Your task to perform on an android device: open app "LinkedIn" (install if not already installed), go to login, and select forgot password Image 0: 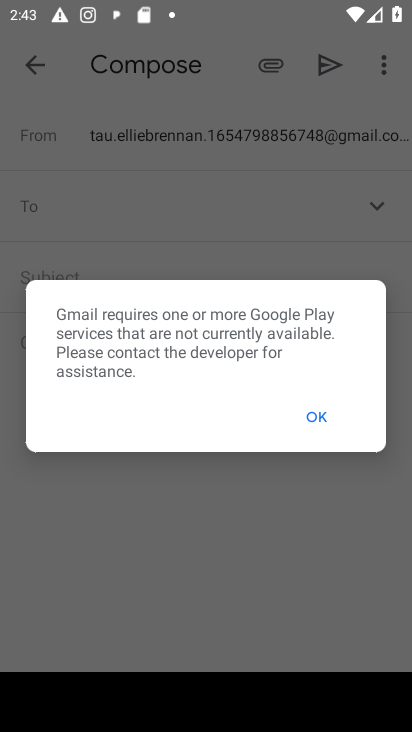
Step 0: press home button
Your task to perform on an android device: open app "LinkedIn" (install if not already installed), go to login, and select forgot password Image 1: 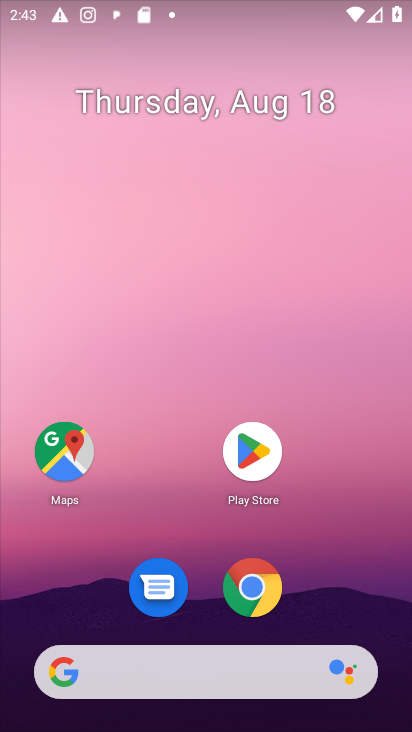
Step 1: click (250, 460)
Your task to perform on an android device: open app "LinkedIn" (install if not already installed), go to login, and select forgot password Image 2: 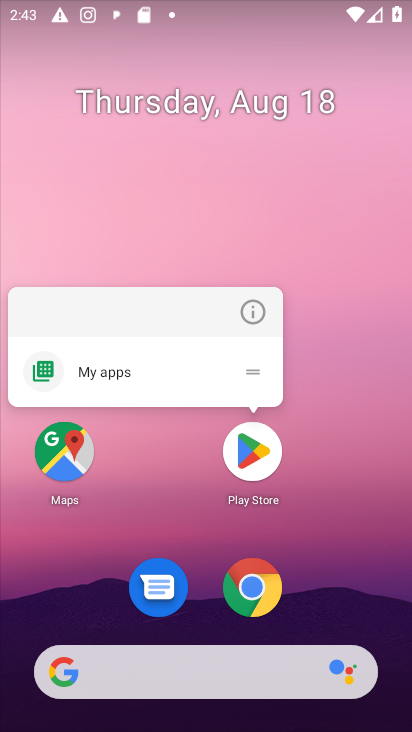
Step 2: click (250, 459)
Your task to perform on an android device: open app "LinkedIn" (install if not already installed), go to login, and select forgot password Image 3: 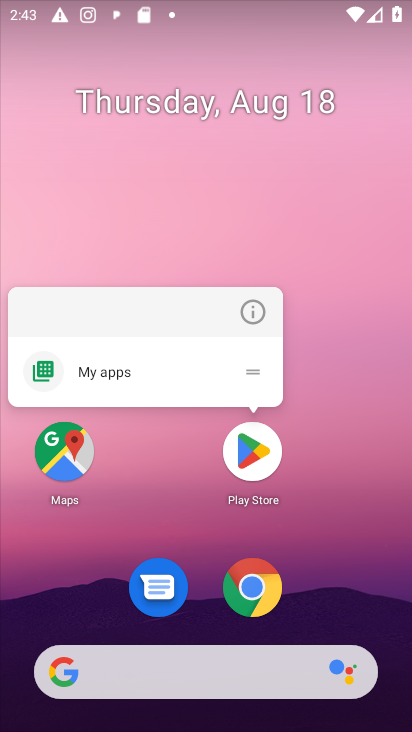
Step 3: click (250, 459)
Your task to perform on an android device: open app "LinkedIn" (install if not already installed), go to login, and select forgot password Image 4: 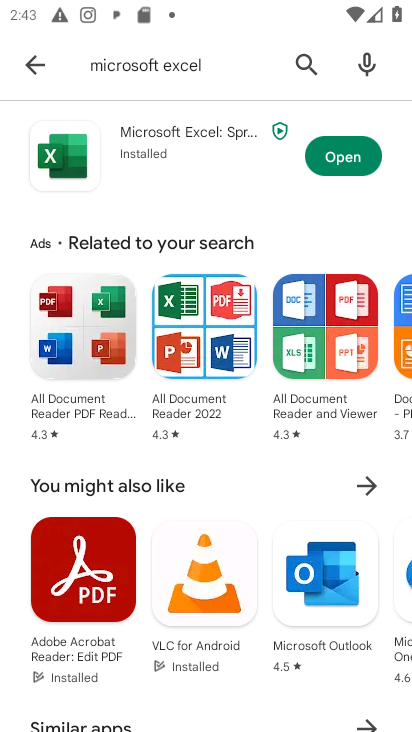
Step 4: click (301, 62)
Your task to perform on an android device: open app "LinkedIn" (install if not already installed), go to login, and select forgot password Image 5: 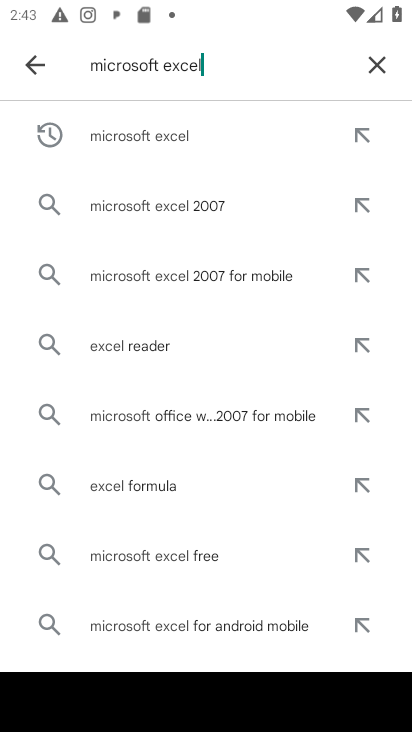
Step 5: click (375, 64)
Your task to perform on an android device: open app "LinkedIn" (install if not already installed), go to login, and select forgot password Image 6: 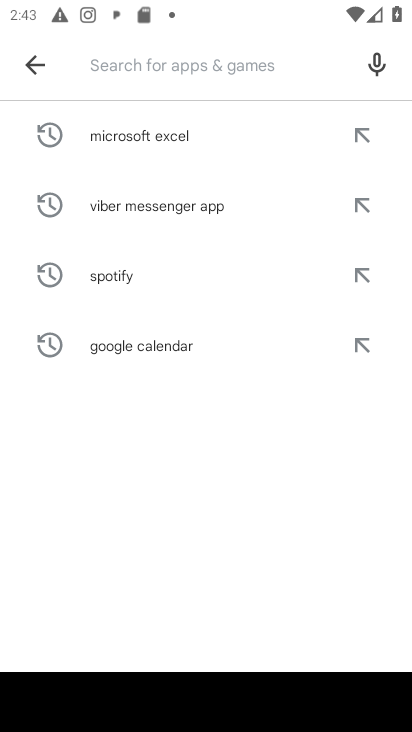
Step 6: type "LinkedIn"
Your task to perform on an android device: open app "LinkedIn" (install if not already installed), go to login, and select forgot password Image 7: 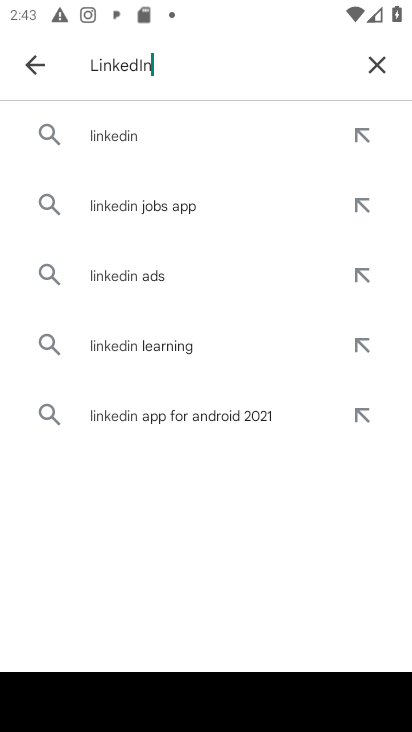
Step 7: click (158, 138)
Your task to perform on an android device: open app "LinkedIn" (install if not already installed), go to login, and select forgot password Image 8: 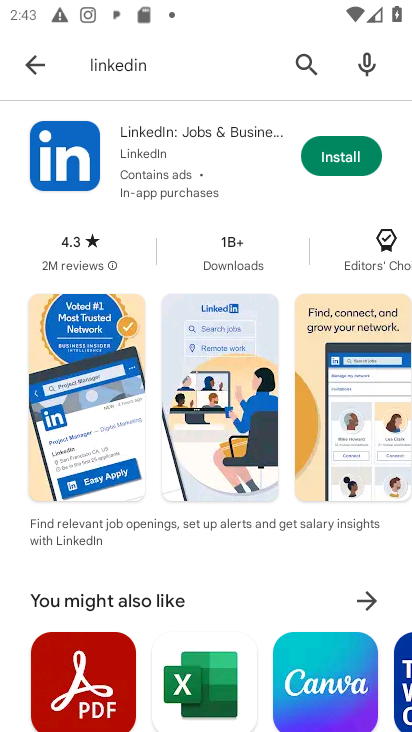
Step 8: click (353, 154)
Your task to perform on an android device: open app "LinkedIn" (install if not already installed), go to login, and select forgot password Image 9: 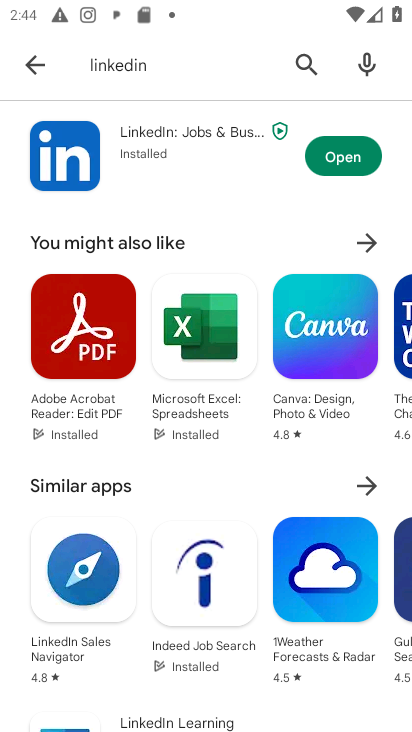
Step 9: click (360, 149)
Your task to perform on an android device: open app "LinkedIn" (install if not already installed), go to login, and select forgot password Image 10: 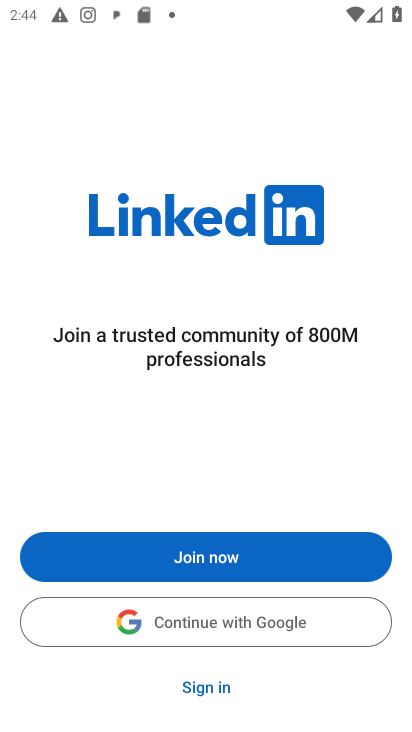
Step 10: drag from (214, 491) to (321, 234)
Your task to perform on an android device: open app "LinkedIn" (install if not already installed), go to login, and select forgot password Image 11: 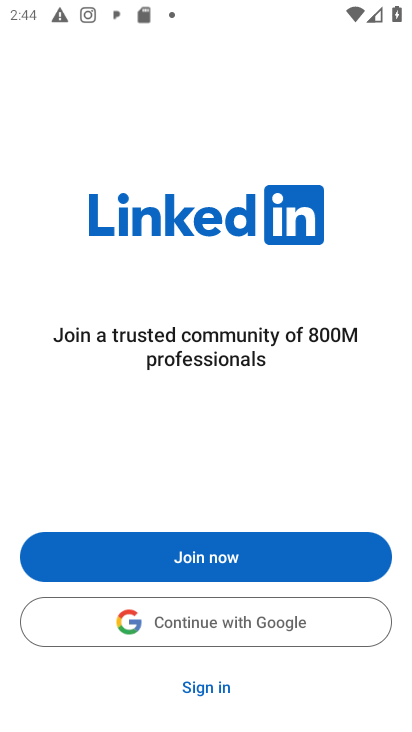
Step 11: click (215, 687)
Your task to perform on an android device: open app "LinkedIn" (install if not already installed), go to login, and select forgot password Image 12: 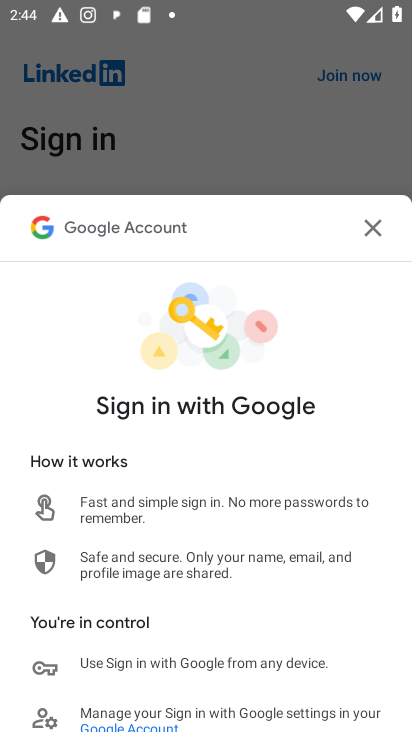
Step 12: click (374, 218)
Your task to perform on an android device: open app "LinkedIn" (install if not already installed), go to login, and select forgot password Image 13: 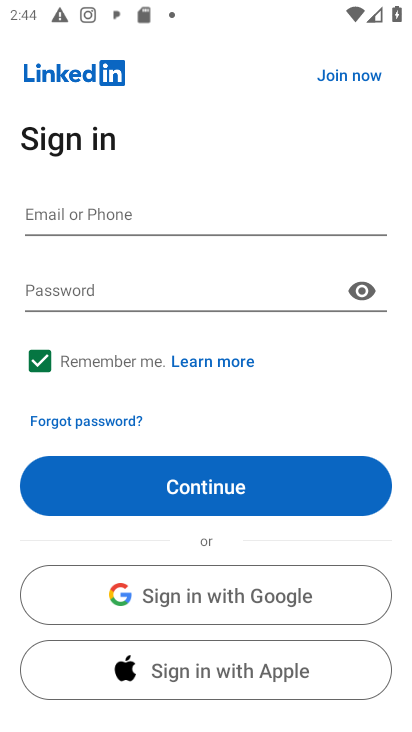
Step 13: click (87, 421)
Your task to perform on an android device: open app "LinkedIn" (install if not already installed), go to login, and select forgot password Image 14: 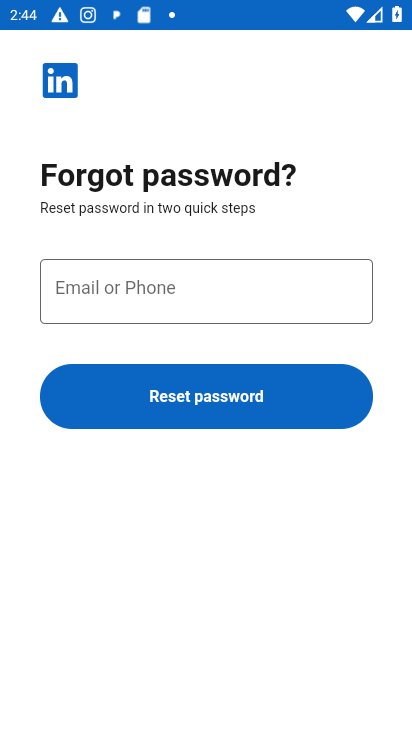
Step 14: task complete